Your task to perform on an android device: Open battery settings Image 0: 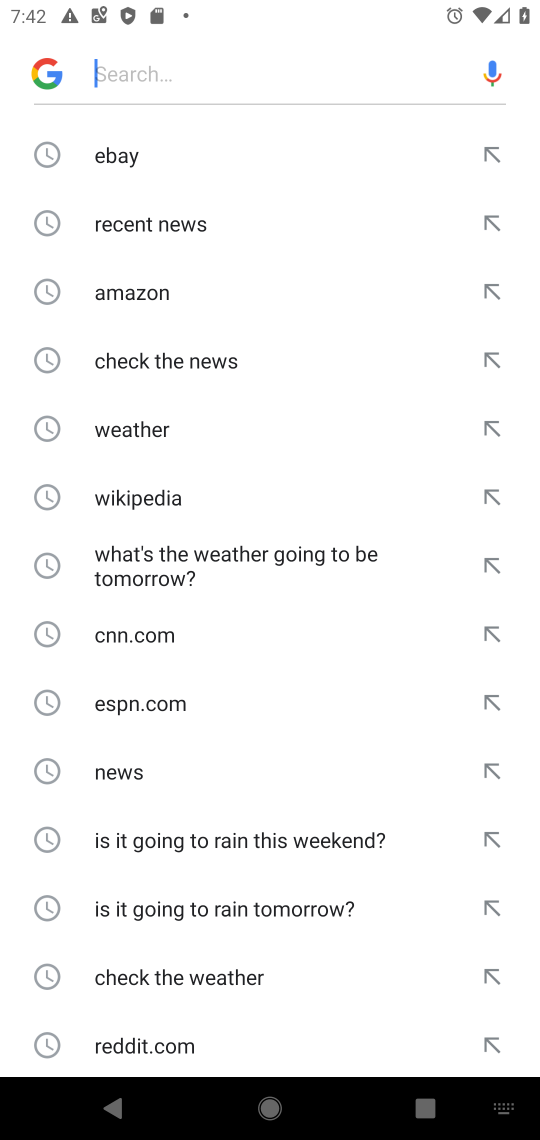
Step 0: press home button
Your task to perform on an android device: Open battery settings Image 1: 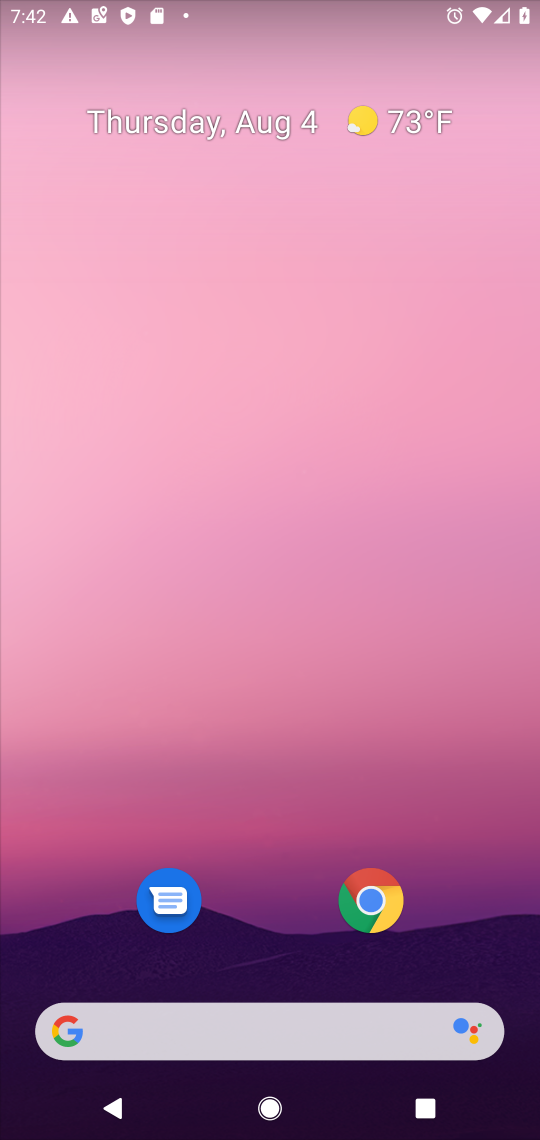
Step 1: drag from (222, 1049) to (296, 124)
Your task to perform on an android device: Open battery settings Image 2: 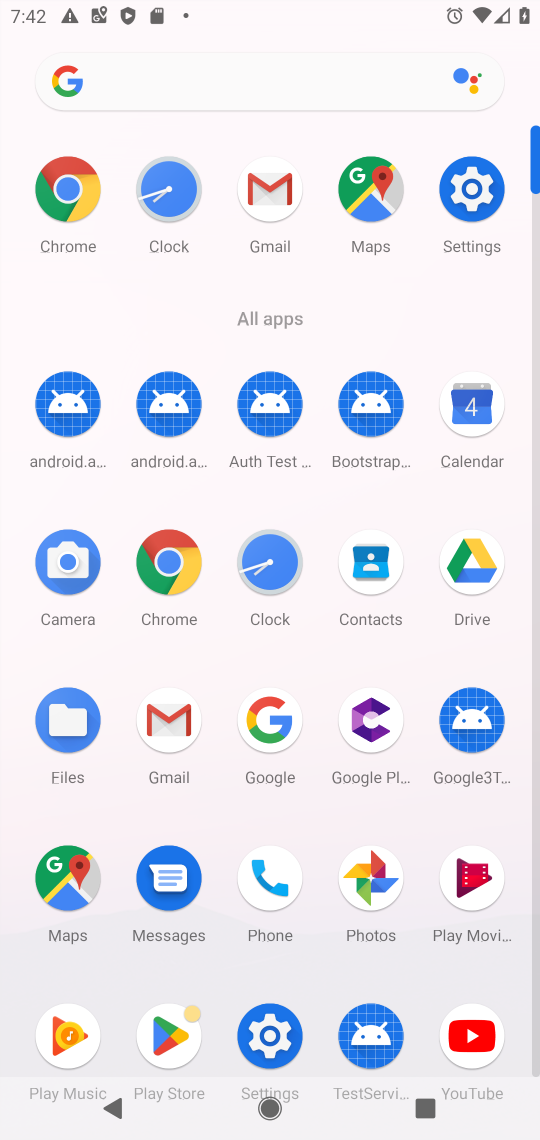
Step 2: click (473, 190)
Your task to perform on an android device: Open battery settings Image 3: 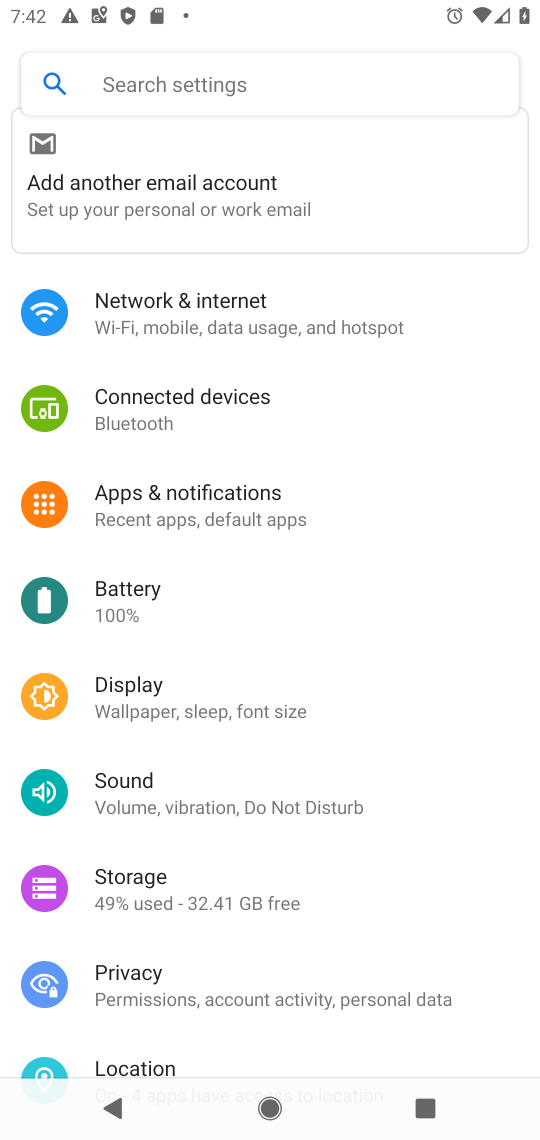
Step 3: click (118, 600)
Your task to perform on an android device: Open battery settings Image 4: 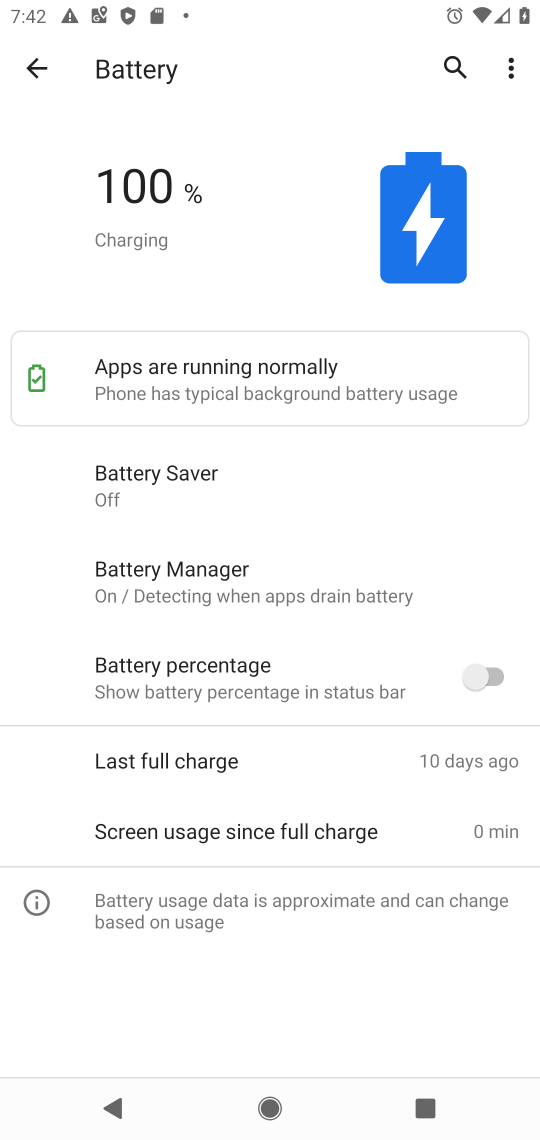
Step 4: task complete